Your task to perform on an android device: Search for "acer predator" on amazon.com, select the first entry, add it to the cart, then select checkout. Image 0: 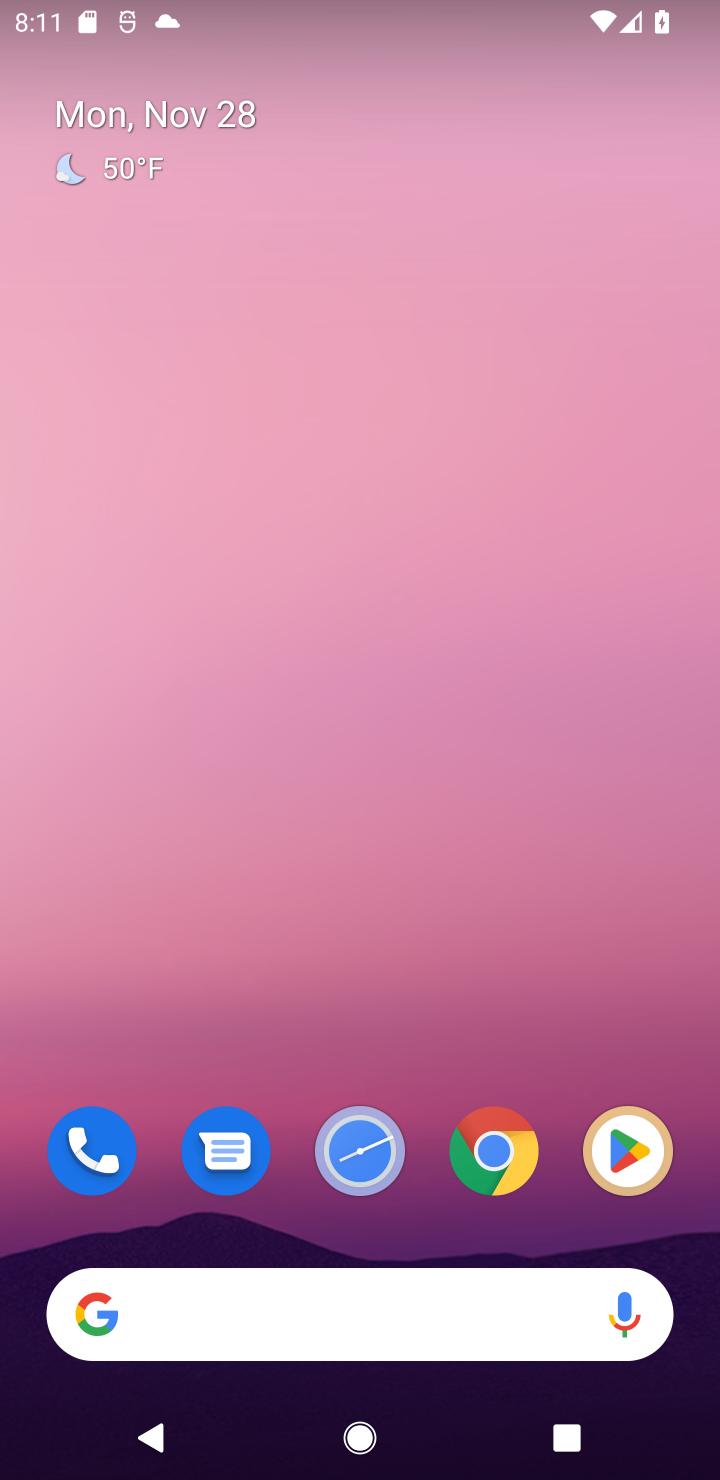
Step 0: click (318, 1333)
Your task to perform on an android device: Search for "acer predator" on amazon.com, select the first entry, add it to the cart, then select checkout. Image 1: 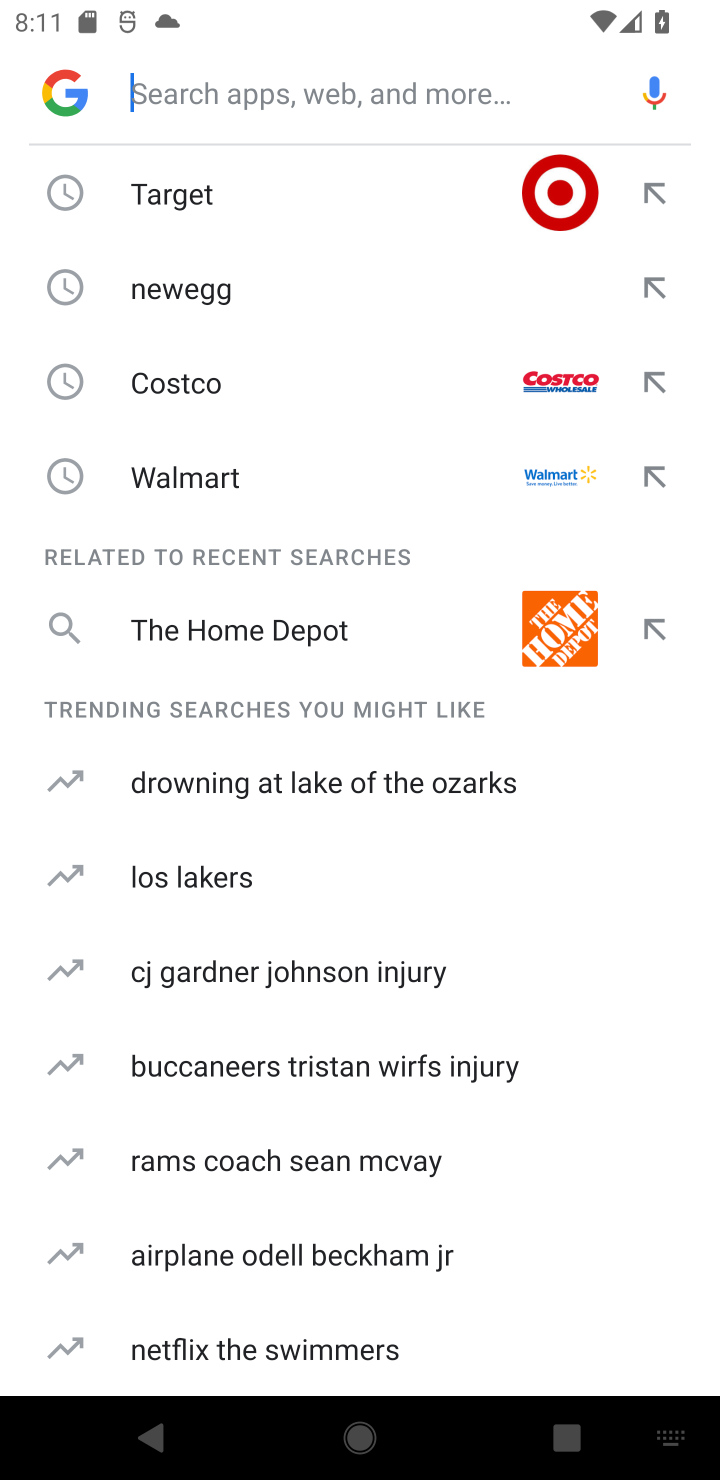
Step 1: type "amazon"
Your task to perform on an android device: Search for "acer predator" on amazon.com, select the first entry, add it to the cart, then select checkout. Image 2: 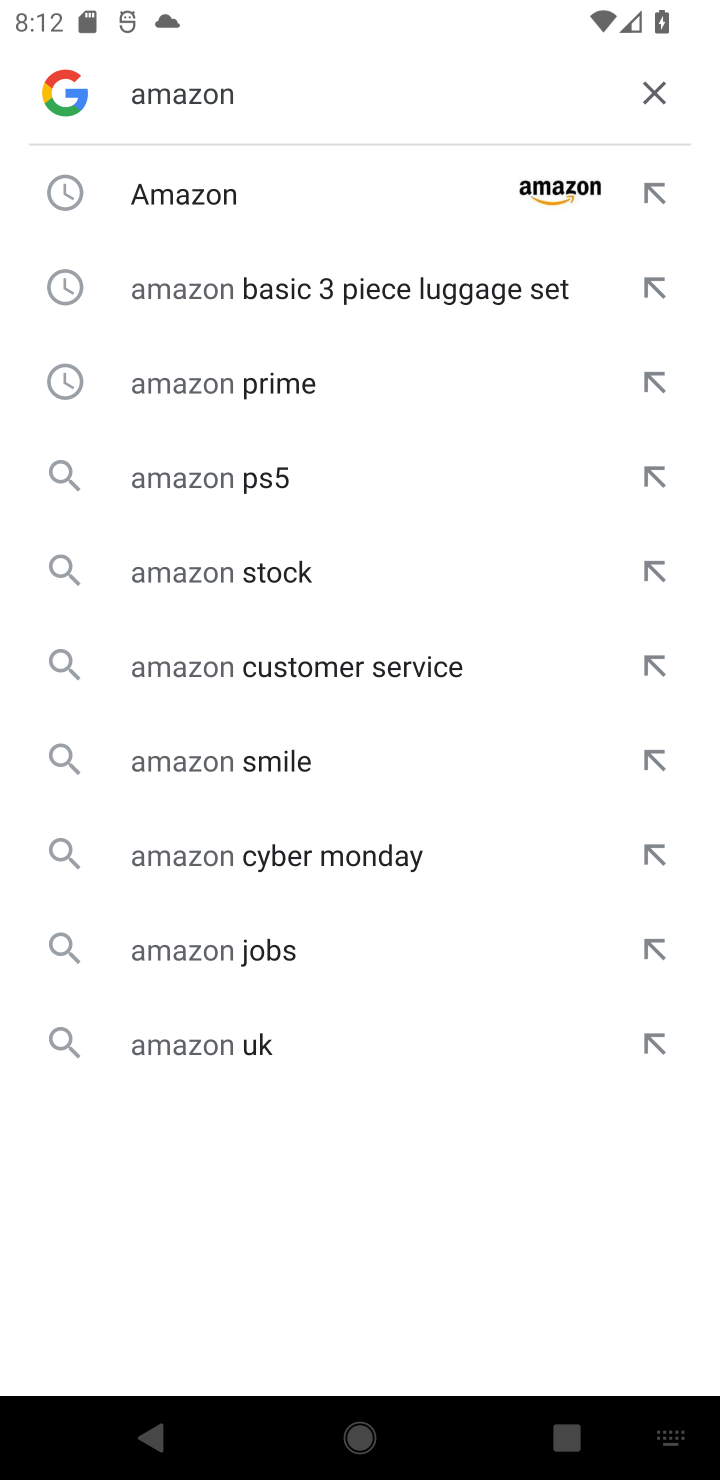
Step 2: click (120, 183)
Your task to perform on an android device: Search for "acer predator" on amazon.com, select the first entry, add it to the cart, then select checkout. Image 3: 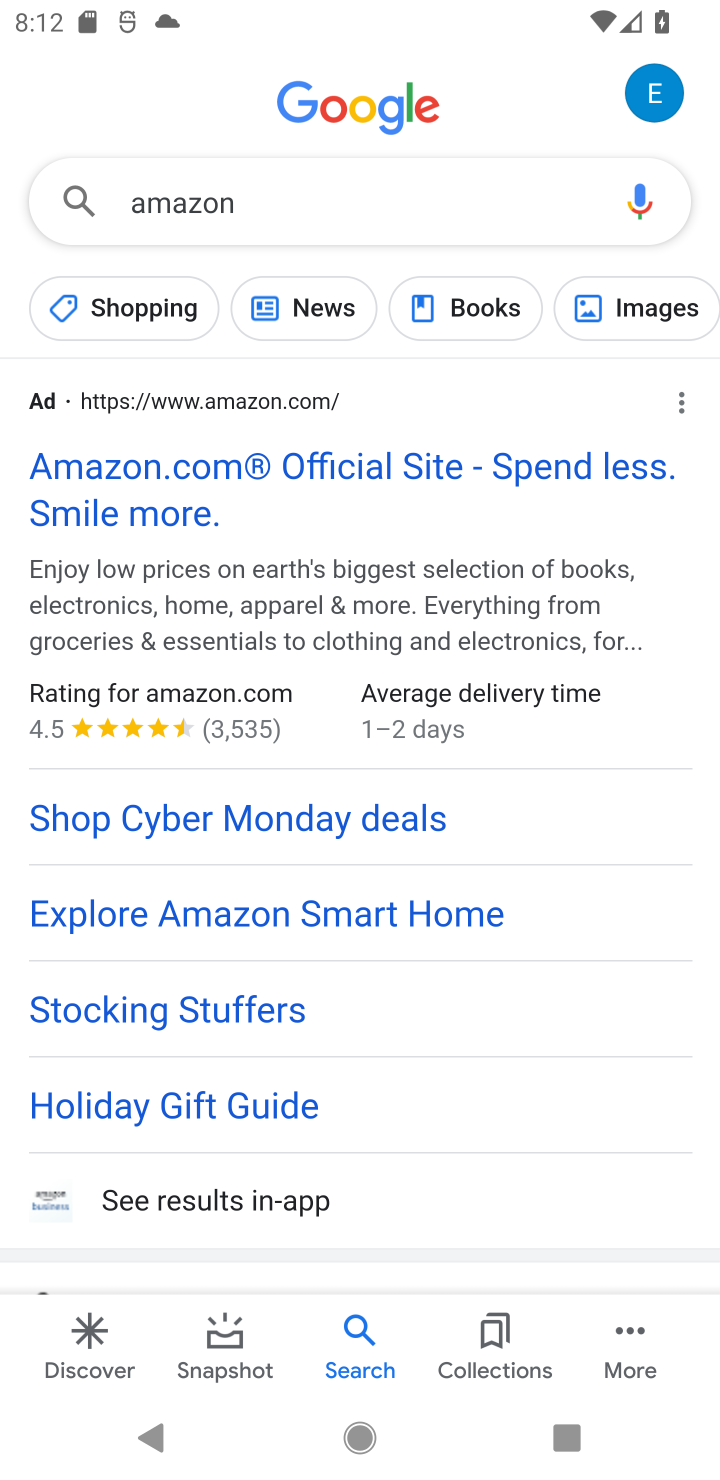
Step 3: click (80, 464)
Your task to perform on an android device: Search for "acer predator" on amazon.com, select the first entry, add it to the cart, then select checkout. Image 4: 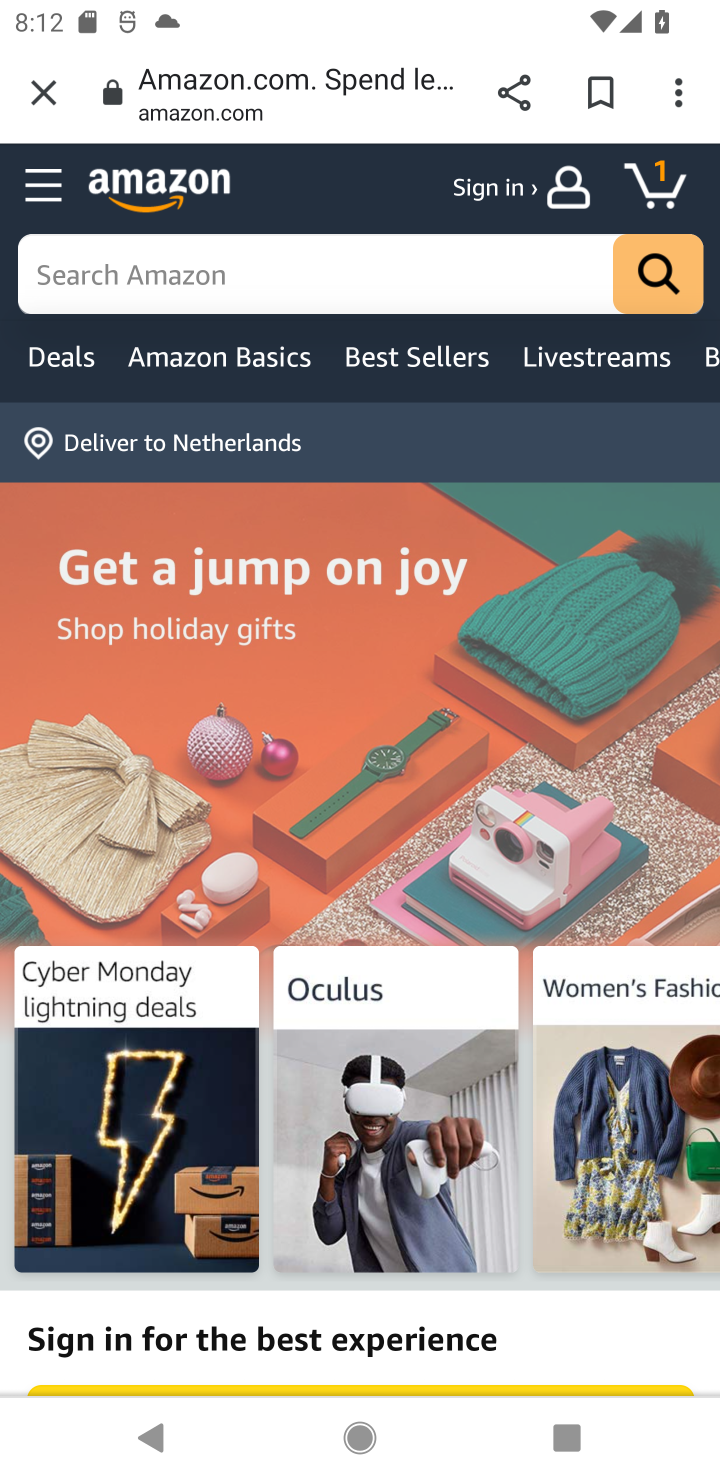
Step 4: click (222, 283)
Your task to perform on an android device: Search for "acer predator" on amazon.com, select the first entry, add it to the cart, then select checkout. Image 5: 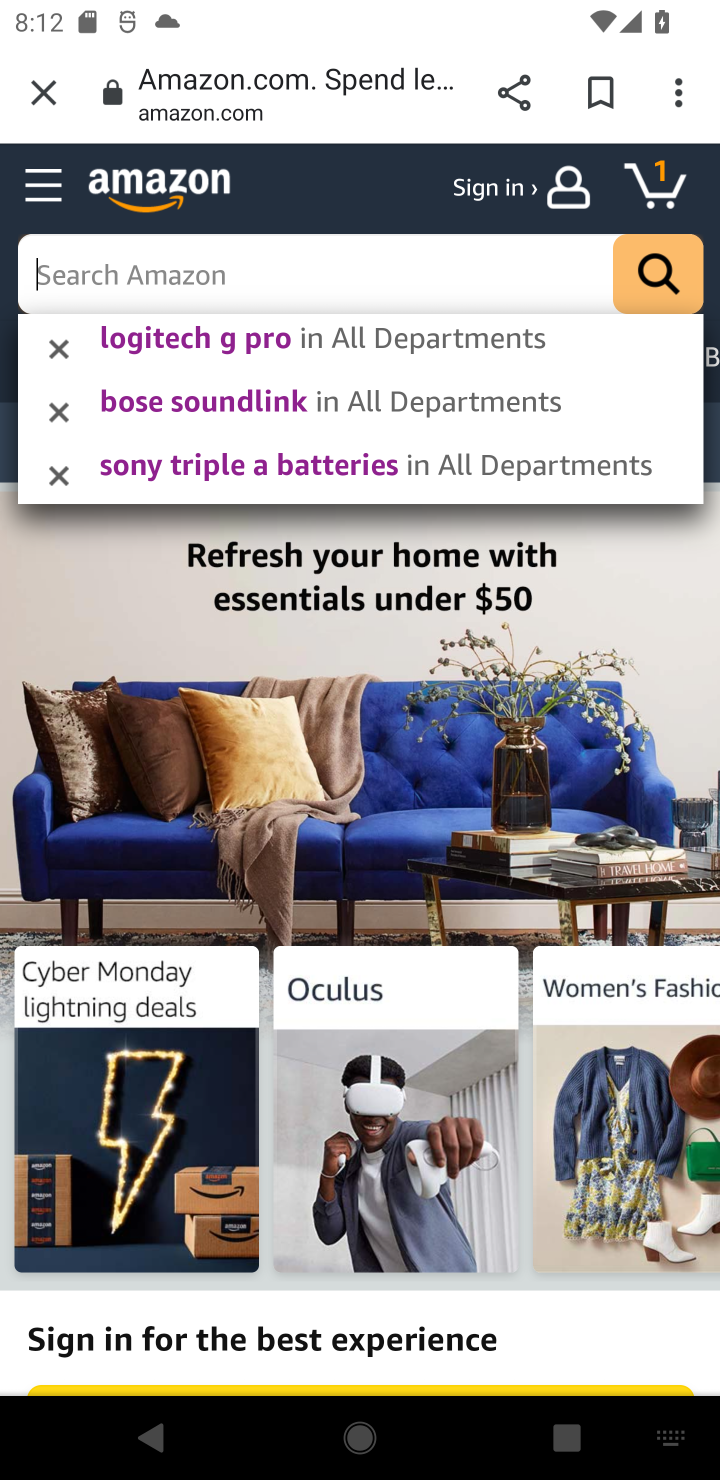
Step 5: type "amazon"
Your task to perform on an android device: Search for "acer predator" on amazon.com, select the first entry, add it to the cart, then select checkout. Image 6: 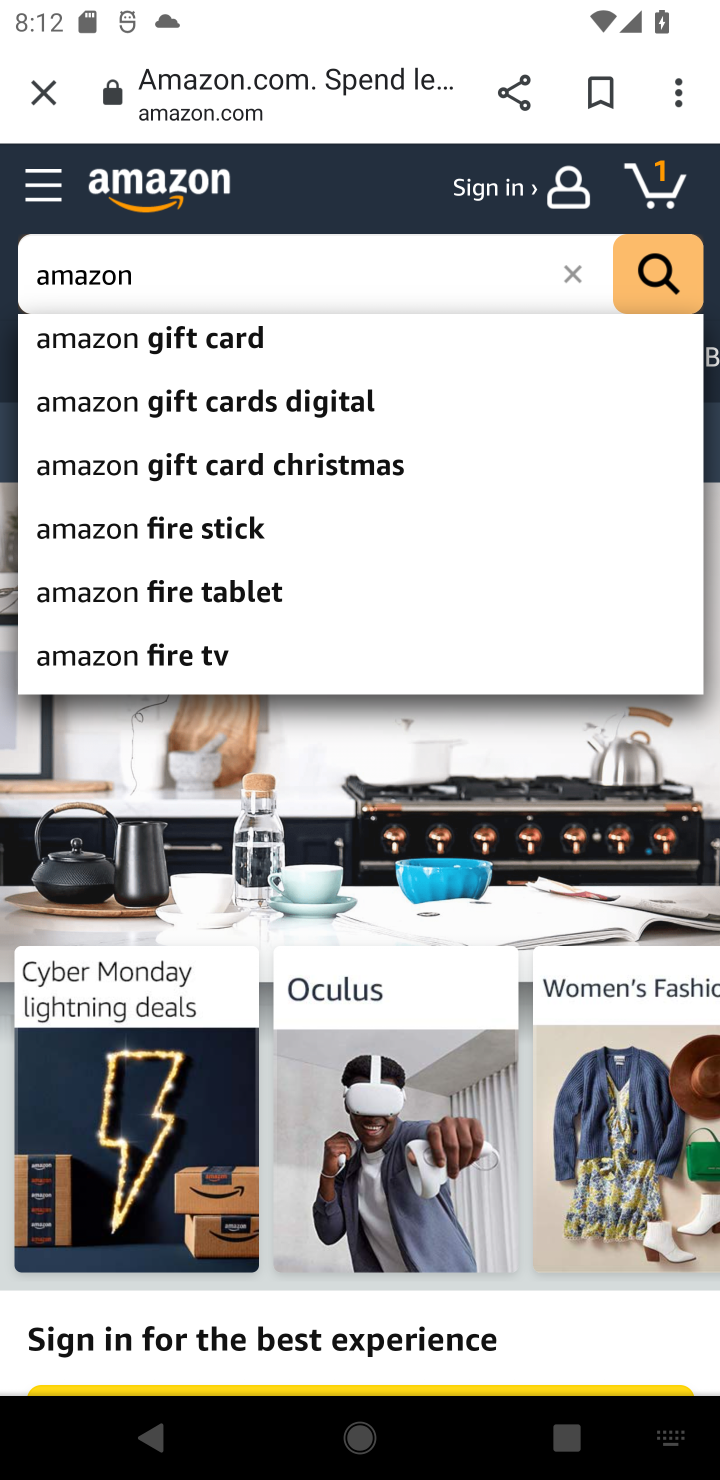
Step 6: click (565, 276)
Your task to perform on an android device: Search for "acer predator" on amazon.com, select the first entry, add it to the cart, then select checkout. Image 7: 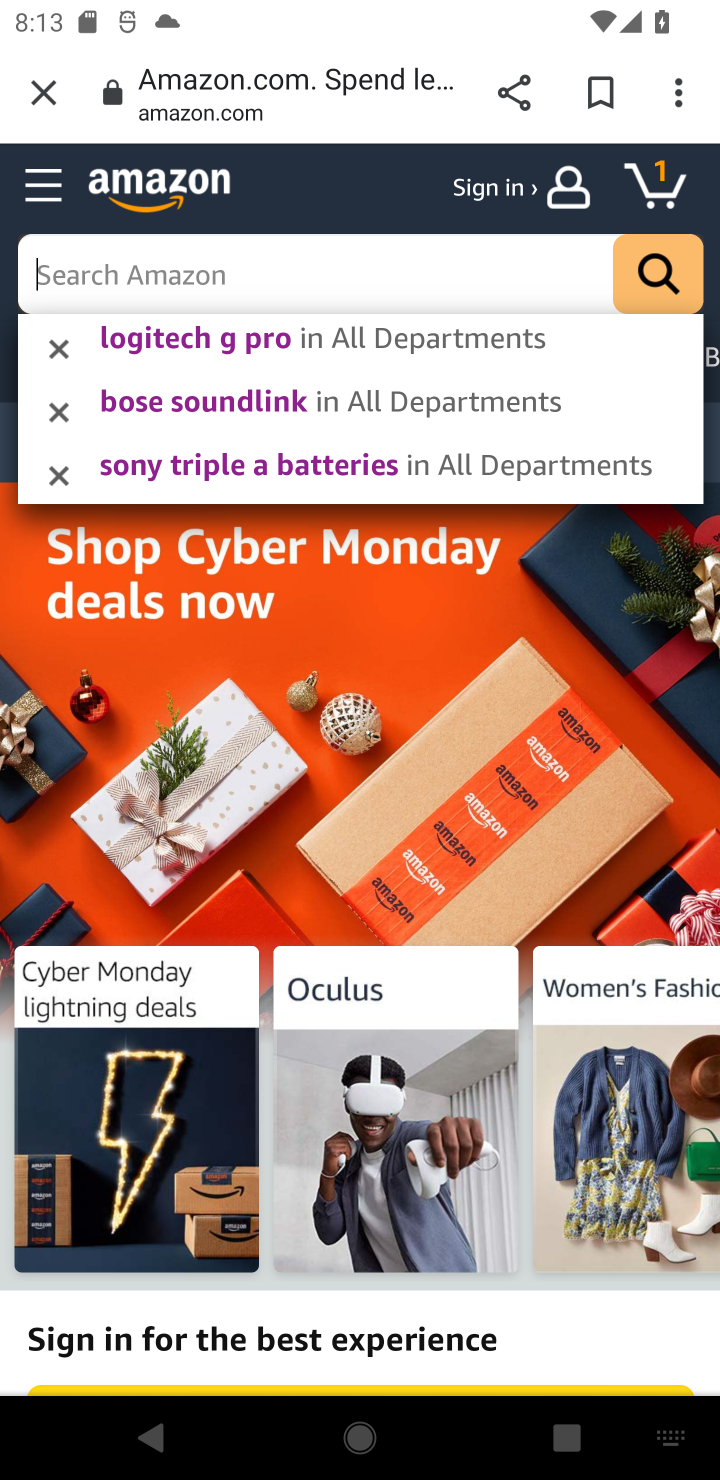
Step 7: type "acer predator"
Your task to perform on an android device: Search for "acer predator" on amazon.com, select the first entry, add it to the cart, then select checkout. Image 8: 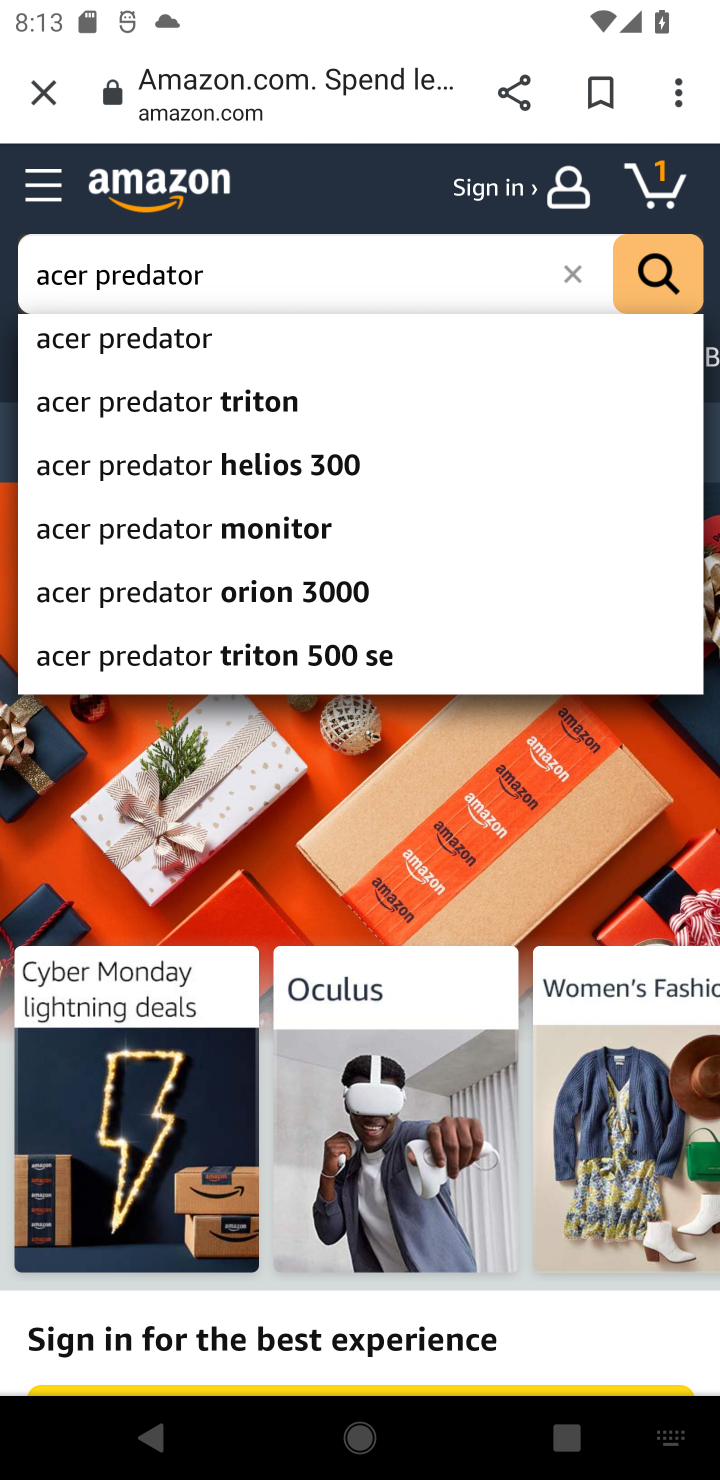
Step 8: click (649, 303)
Your task to perform on an android device: Search for "acer predator" on amazon.com, select the first entry, add it to the cart, then select checkout. Image 9: 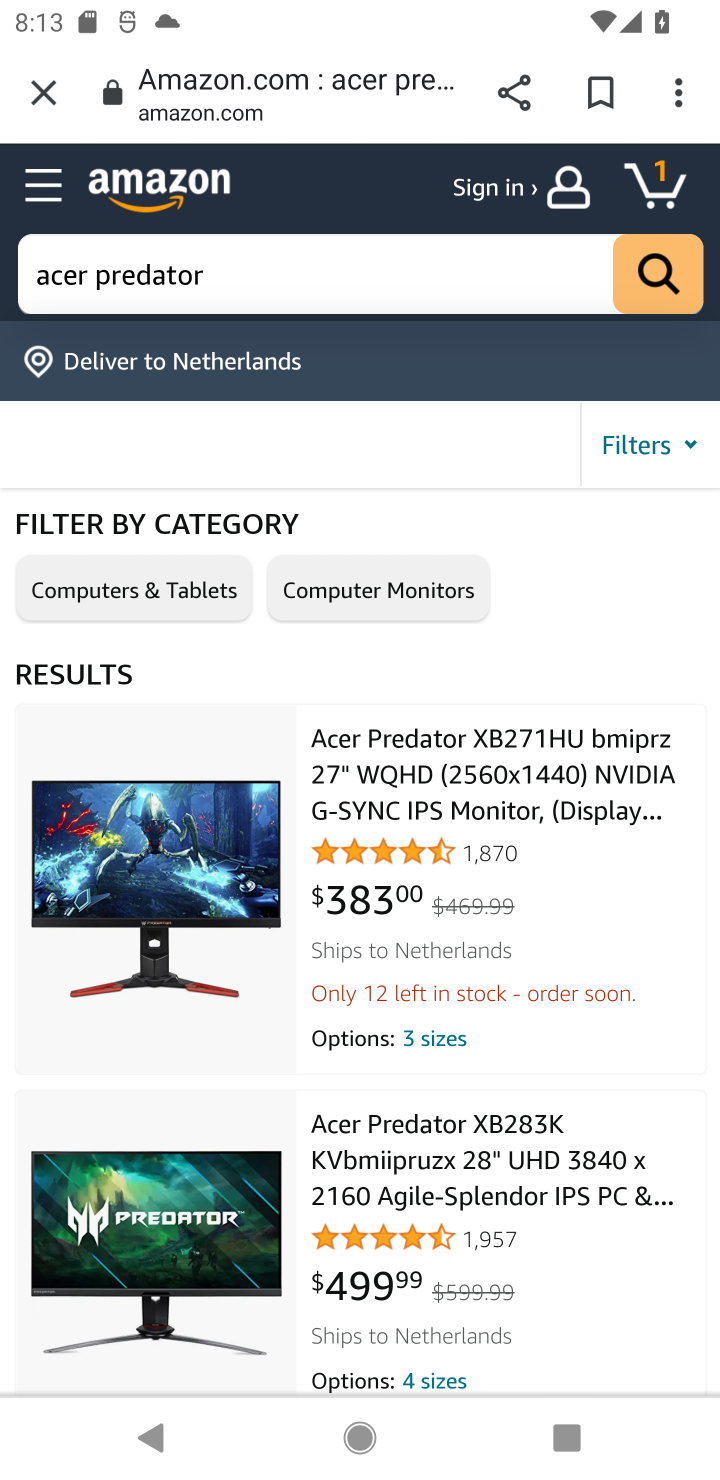
Step 9: click (448, 760)
Your task to perform on an android device: Search for "acer predator" on amazon.com, select the first entry, add it to the cart, then select checkout. Image 10: 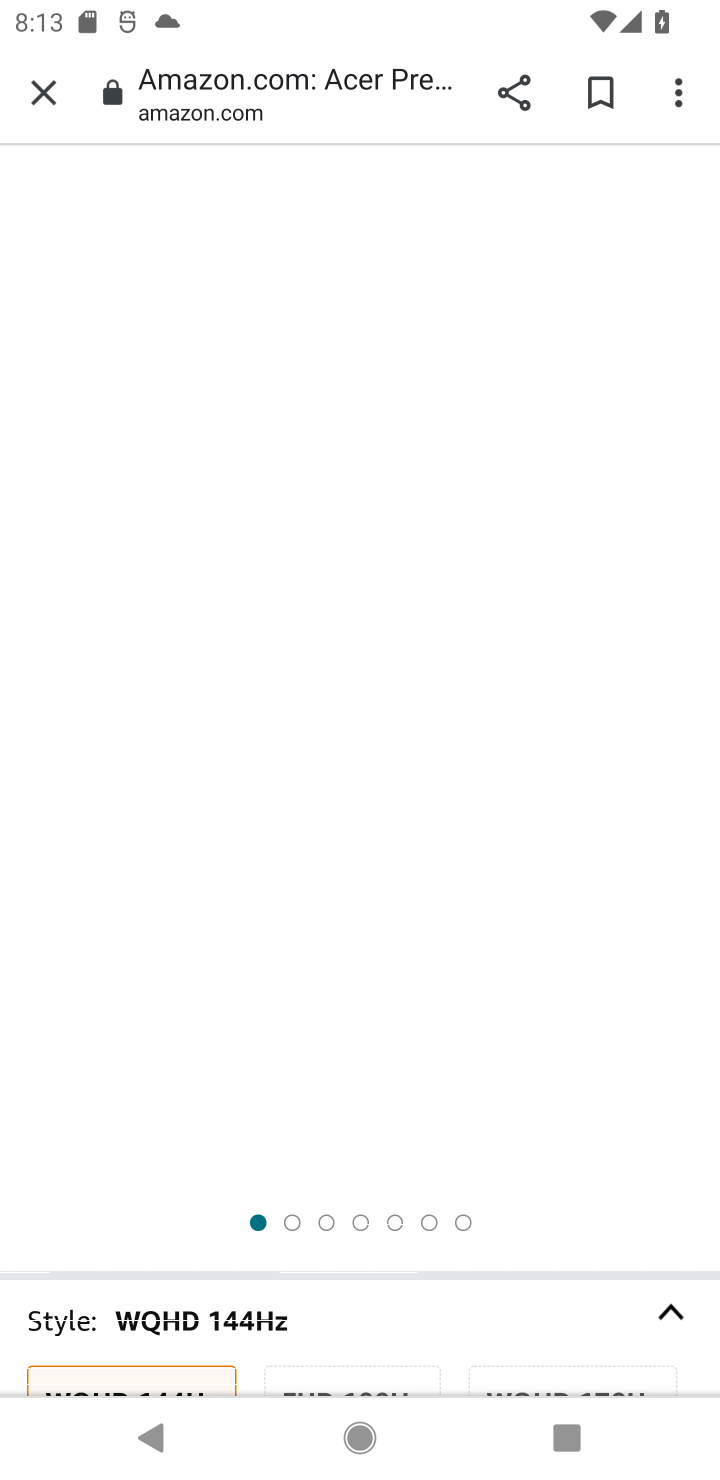
Step 10: task complete